Your task to perform on an android device: Open wifi settings Image 0: 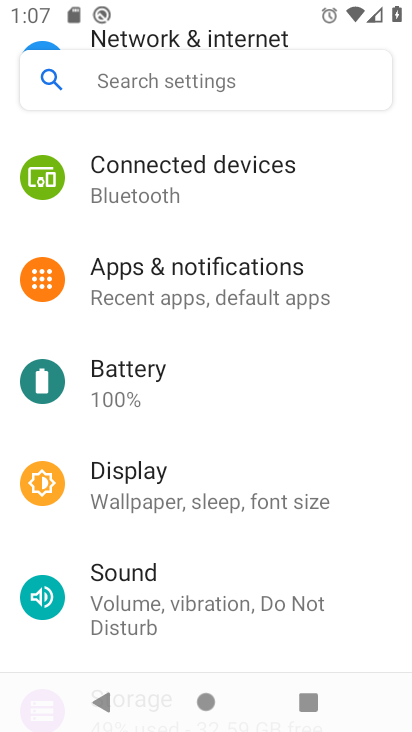
Step 0: drag from (263, 258) to (264, 697)
Your task to perform on an android device: Open wifi settings Image 1: 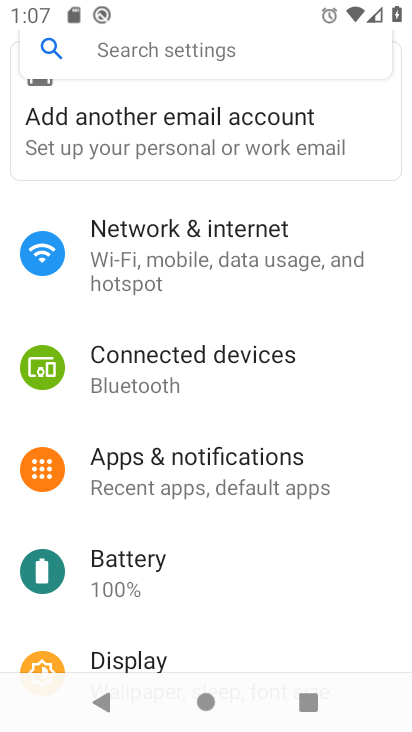
Step 1: click (265, 259)
Your task to perform on an android device: Open wifi settings Image 2: 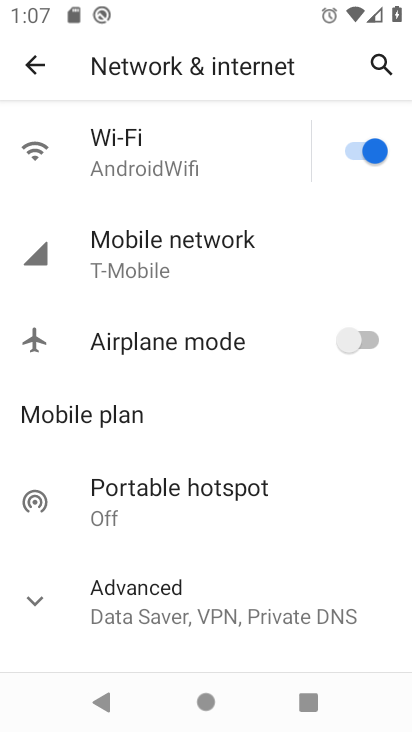
Step 2: click (191, 157)
Your task to perform on an android device: Open wifi settings Image 3: 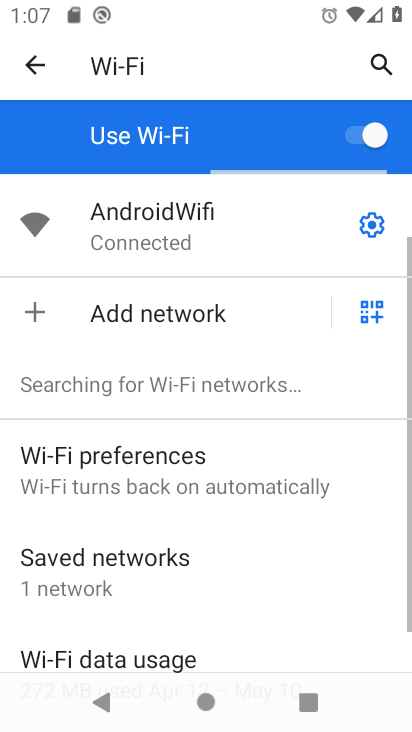
Step 3: click (370, 217)
Your task to perform on an android device: Open wifi settings Image 4: 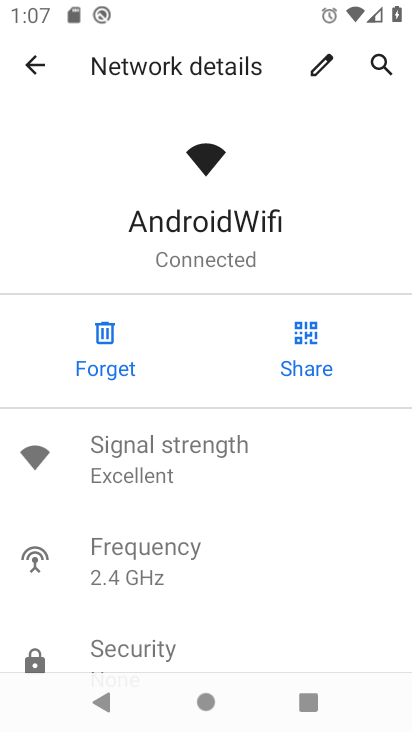
Step 4: task complete